Your task to perform on an android device: What is the recent news? Image 0: 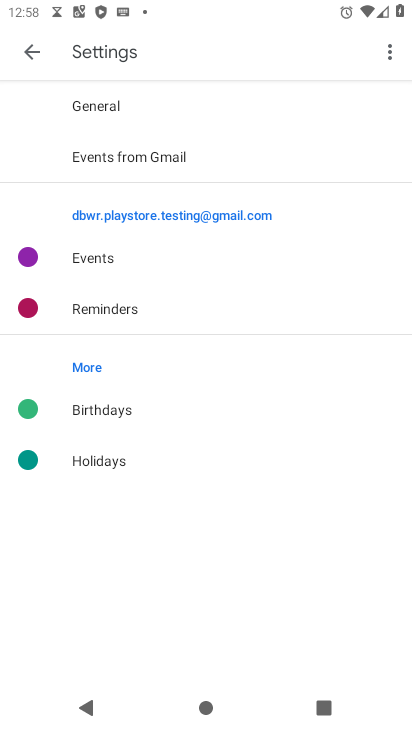
Step 0: press home button
Your task to perform on an android device: What is the recent news? Image 1: 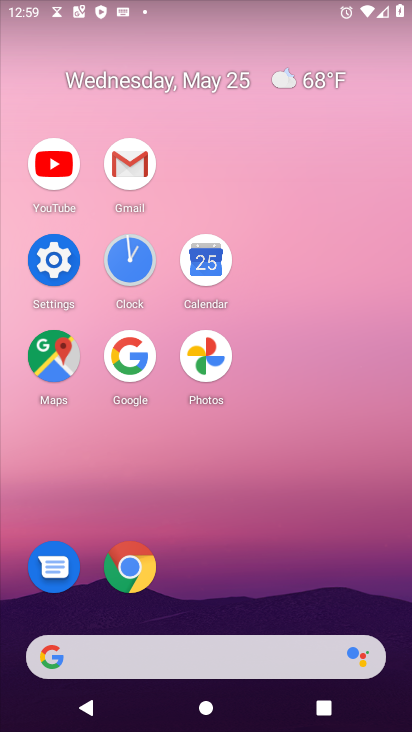
Step 1: click (138, 358)
Your task to perform on an android device: What is the recent news? Image 2: 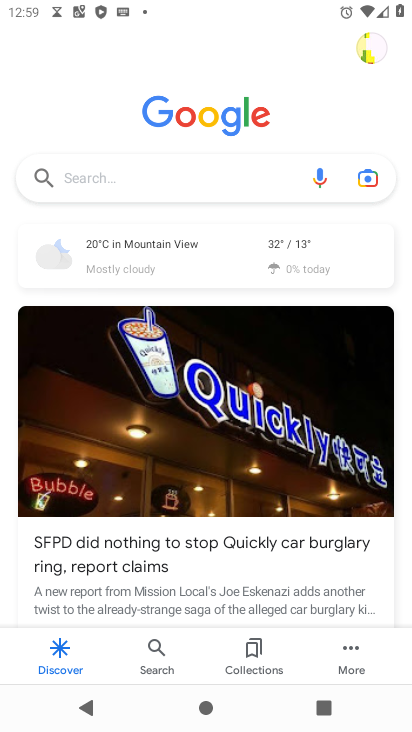
Step 2: click (241, 180)
Your task to perform on an android device: What is the recent news? Image 3: 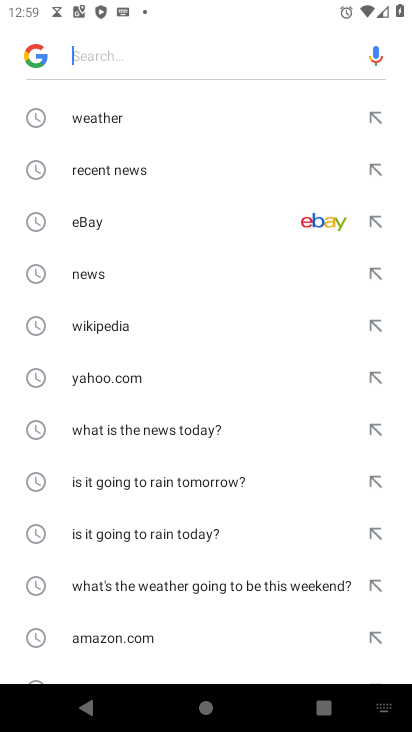
Step 3: click (77, 176)
Your task to perform on an android device: What is the recent news? Image 4: 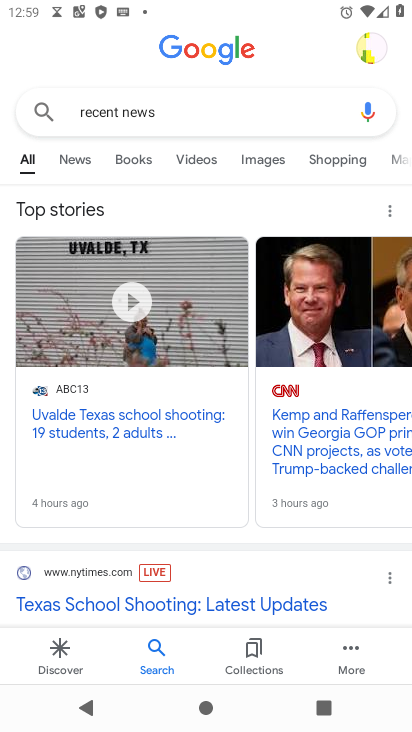
Step 4: task complete